Your task to perform on an android device: Search for pizza restaurants on Maps Image 0: 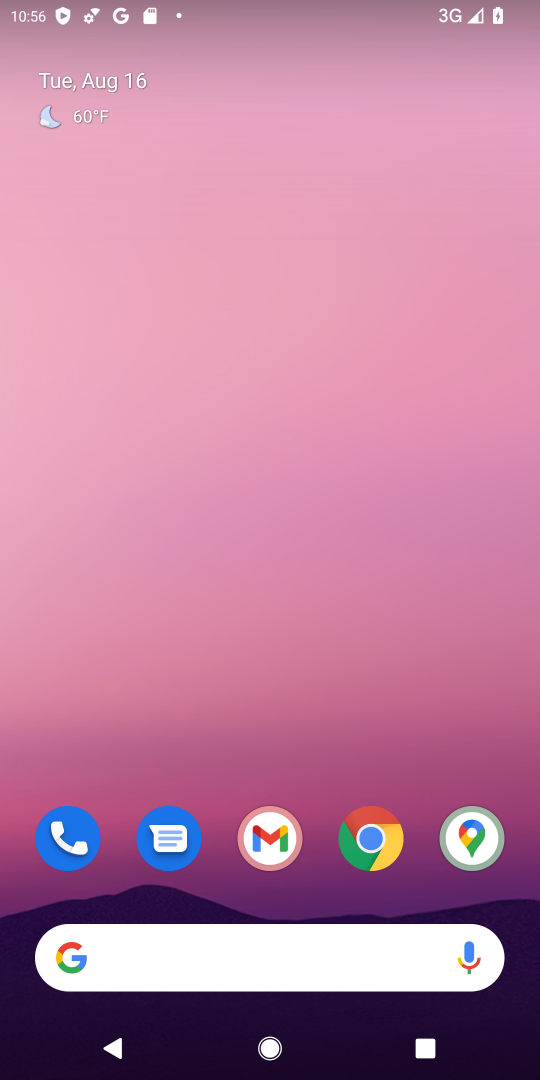
Step 0: press home button
Your task to perform on an android device: Search for pizza restaurants on Maps Image 1: 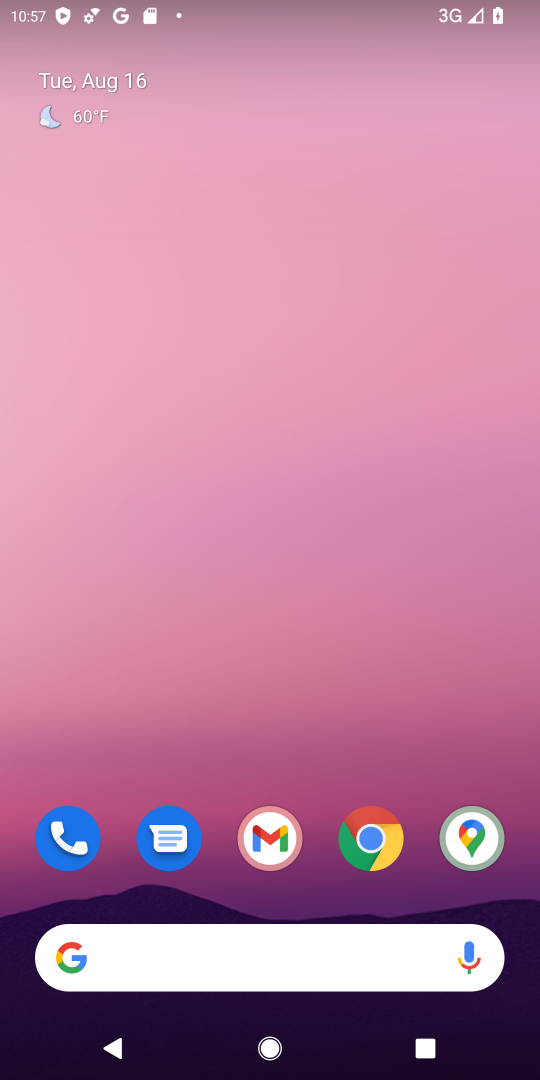
Step 1: press home button
Your task to perform on an android device: Search for pizza restaurants on Maps Image 2: 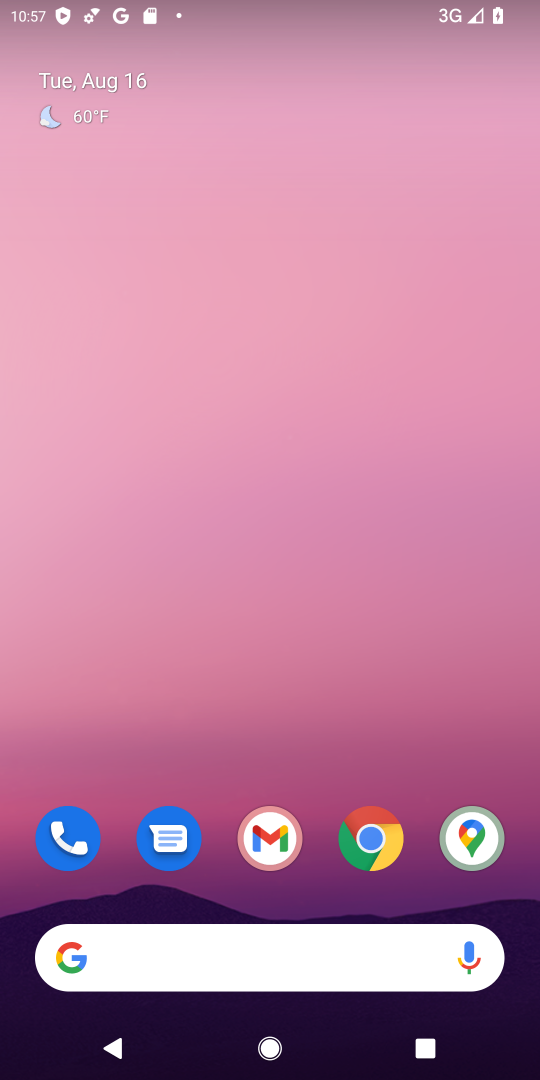
Step 2: drag from (257, 758) to (315, 1)
Your task to perform on an android device: Search for pizza restaurants on Maps Image 3: 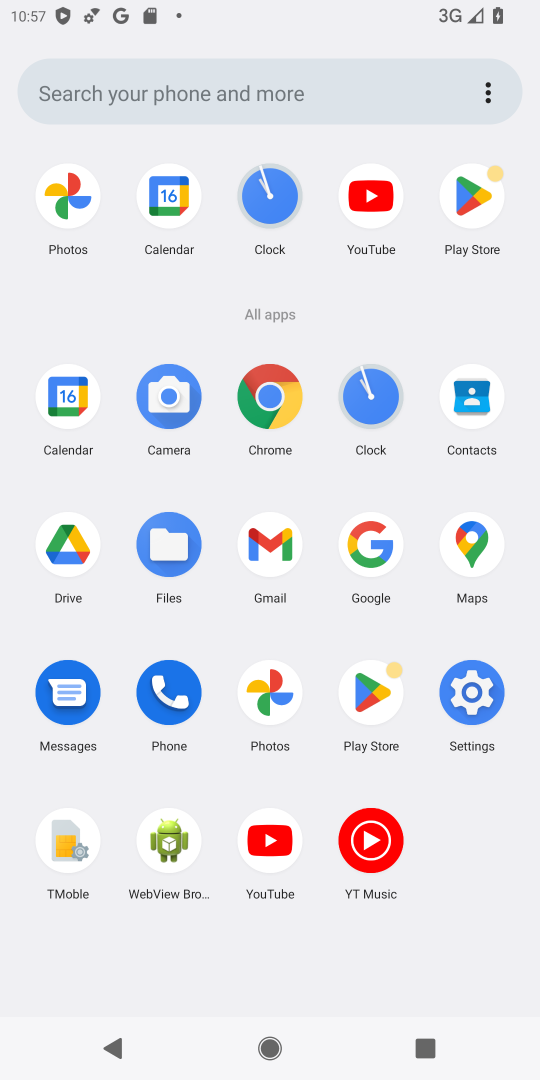
Step 3: click (472, 559)
Your task to perform on an android device: Search for pizza restaurants on Maps Image 4: 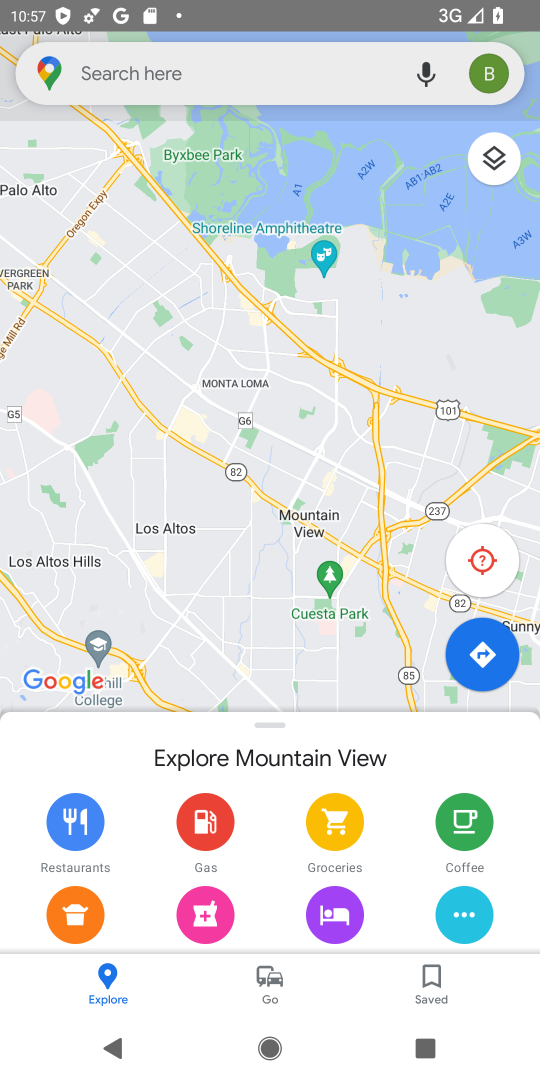
Step 4: click (257, 74)
Your task to perform on an android device: Search for pizza restaurants on Maps Image 5: 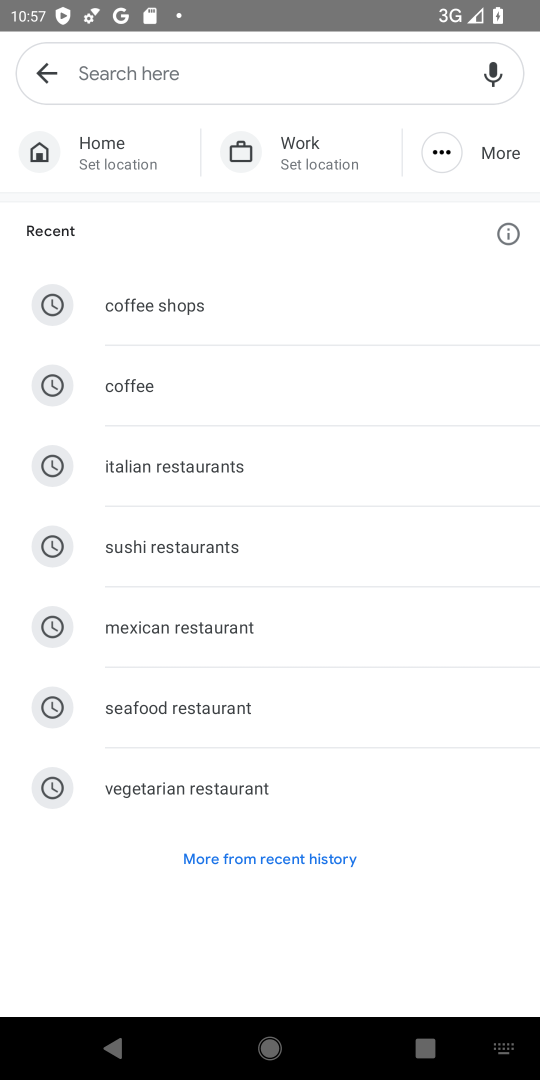
Step 5: type "pizza restaurants"
Your task to perform on an android device: Search for pizza restaurants on Maps Image 6: 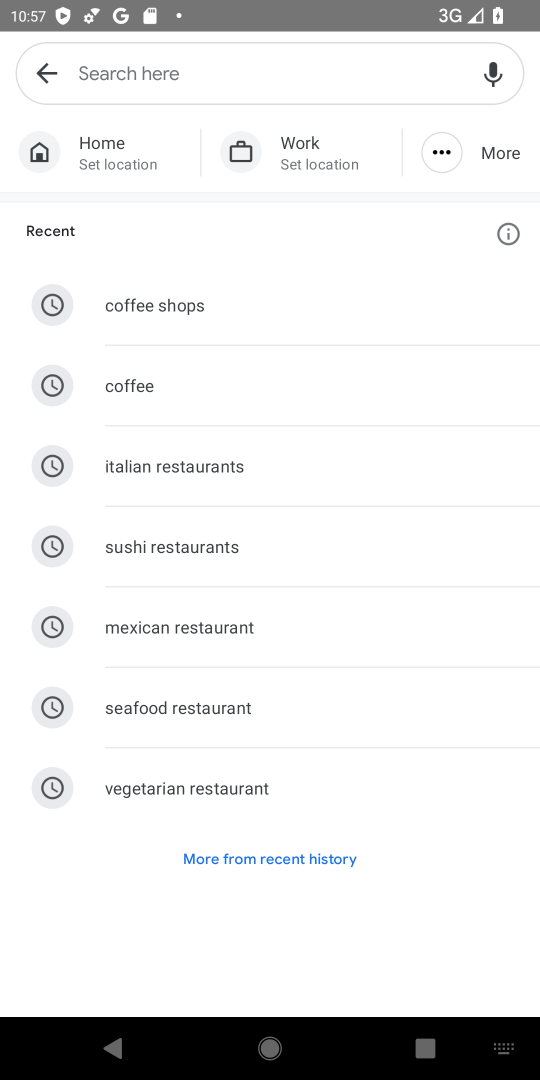
Step 6: click (129, 89)
Your task to perform on an android device: Search for pizza restaurants on Maps Image 7: 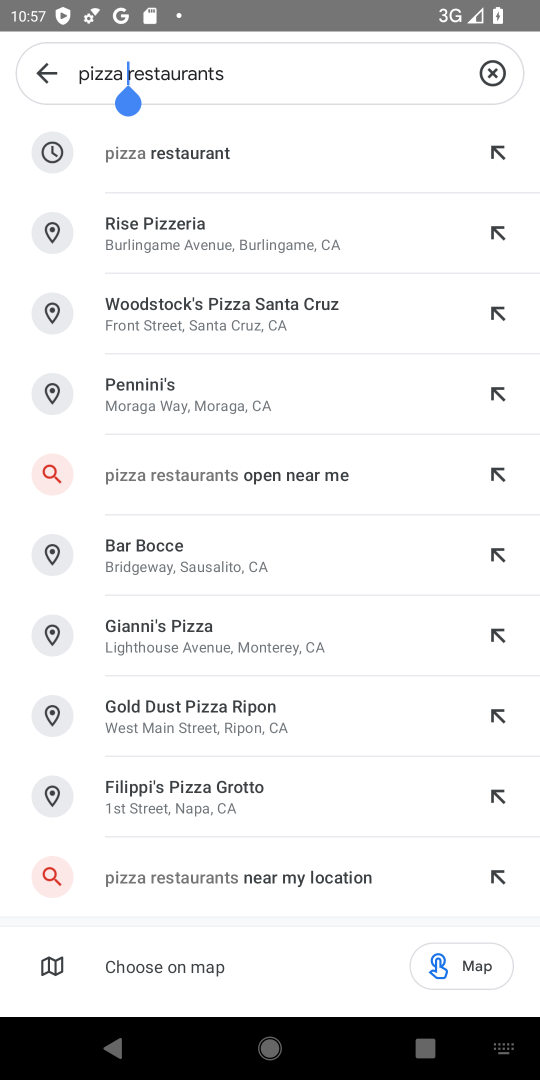
Step 7: press enter
Your task to perform on an android device: Search for pizza restaurants on Maps Image 8: 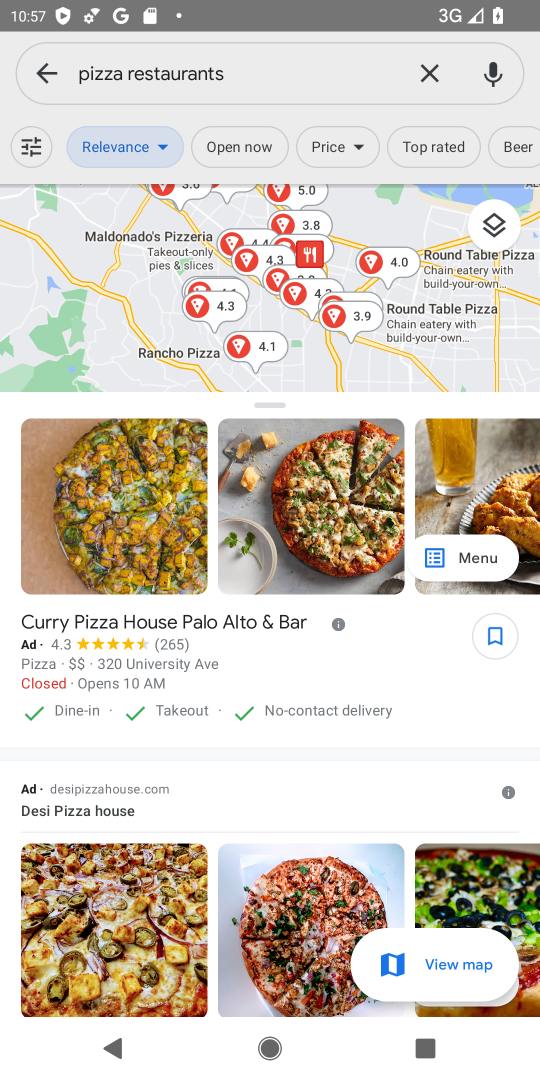
Step 8: task complete